Your task to perform on an android device: all mails in gmail Image 0: 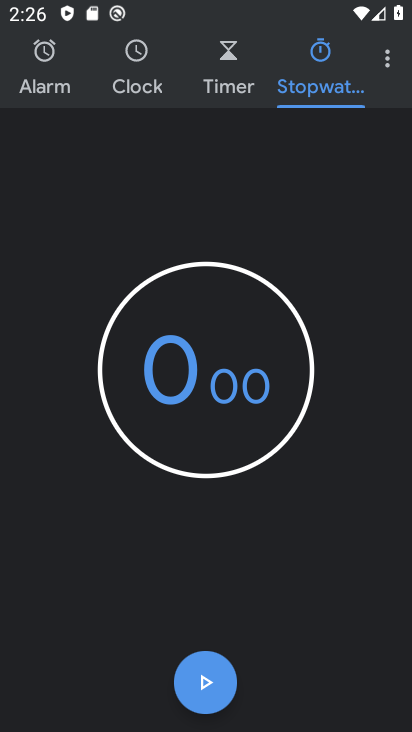
Step 0: press back button
Your task to perform on an android device: all mails in gmail Image 1: 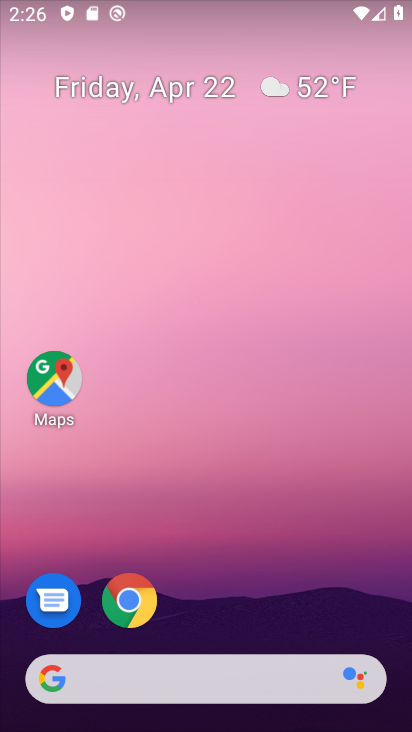
Step 1: drag from (272, 303) to (231, 9)
Your task to perform on an android device: all mails in gmail Image 2: 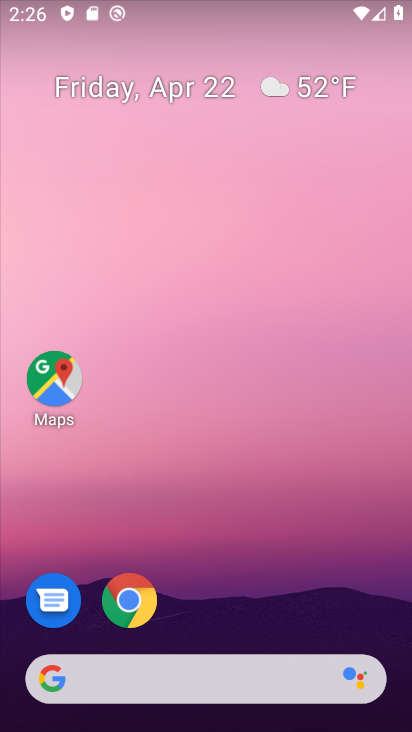
Step 2: drag from (378, 534) to (285, 4)
Your task to perform on an android device: all mails in gmail Image 3: 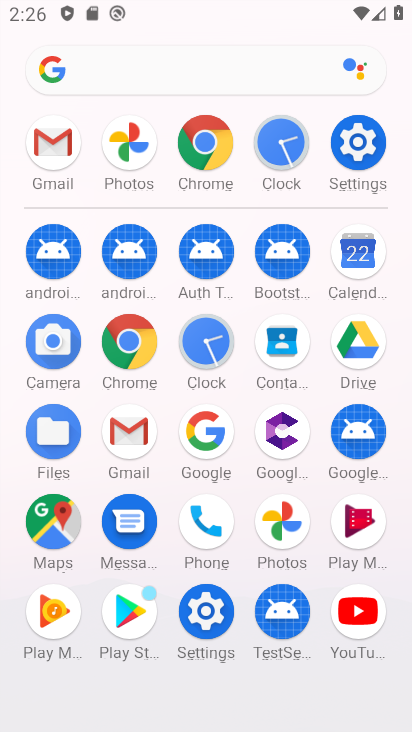
Step 3: drag from (14, 544) to (27, 301)
Your task to perform on an android device: all mails in gmail Image 4: 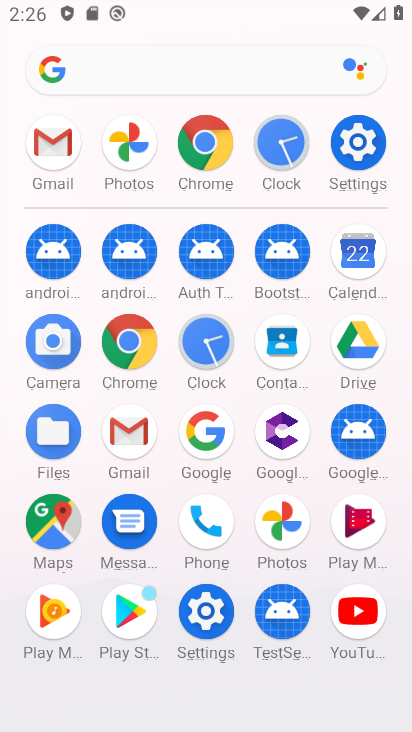
Step 4: click (49, 142)
Your task to perform on an android device: all mails in gmail Image 5: 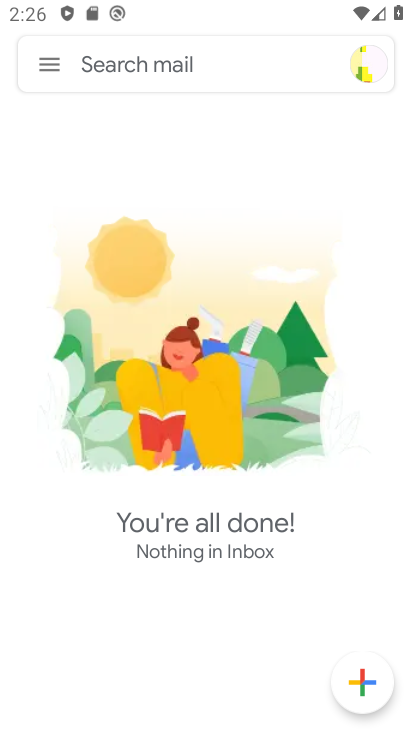
Step 5: click (40, 60)
Your task to perform on an android device: all mails in gmail Image 6: 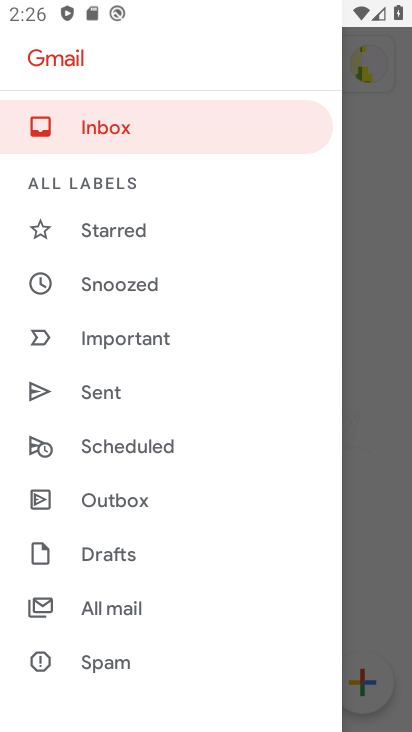
Step 6: click (140, 610)
Your task to perform on an android device: all mails in gmail Image 7: 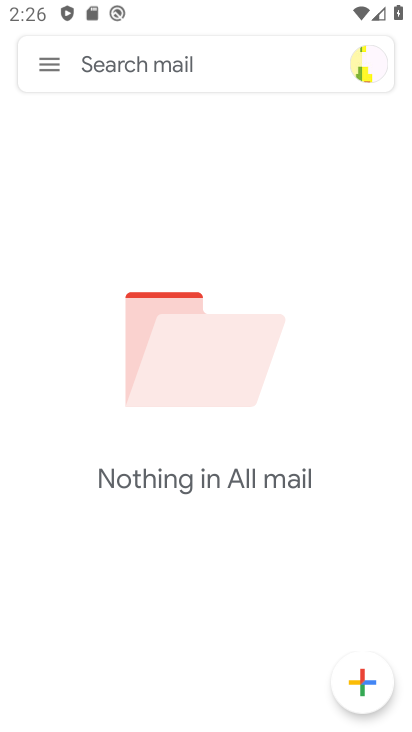
Step 7: task complete